Your task to perform on an android device: Is it going to rain today? Image 0: 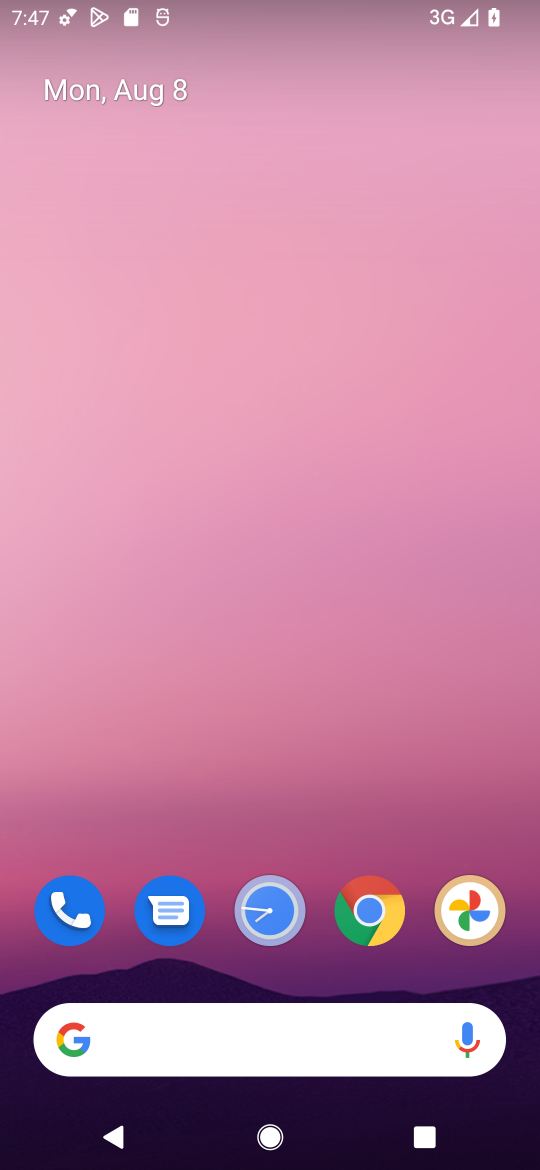
Step 0: click (278, 1041)
Your task to perform on an android device: Is it going to rain today? Image 1: 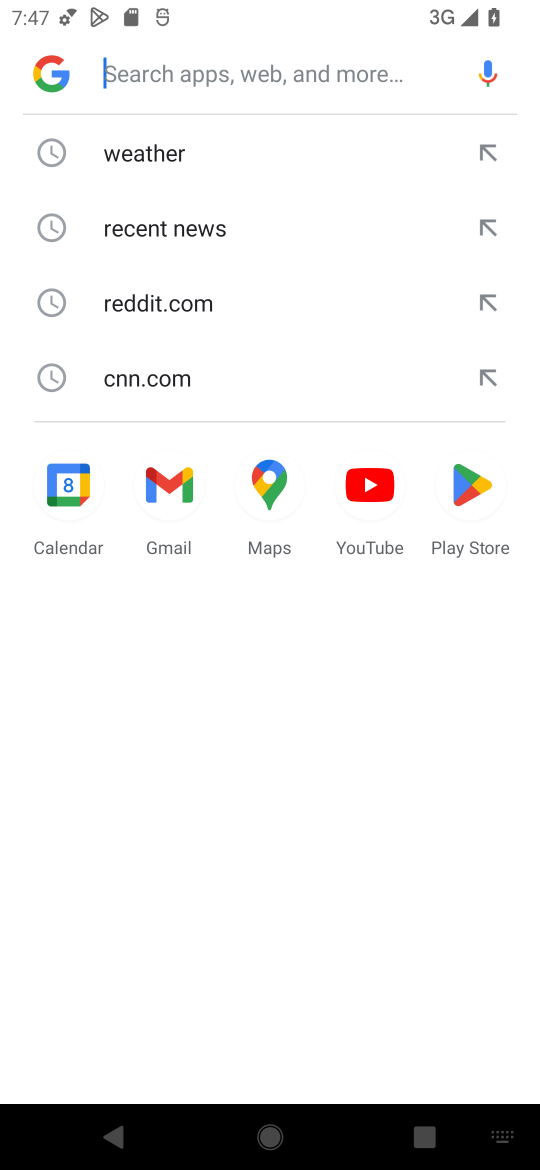
Step 1: type "is it going to rain today"
Your task to perform on an android device: Is it going to rain today? Image 2: 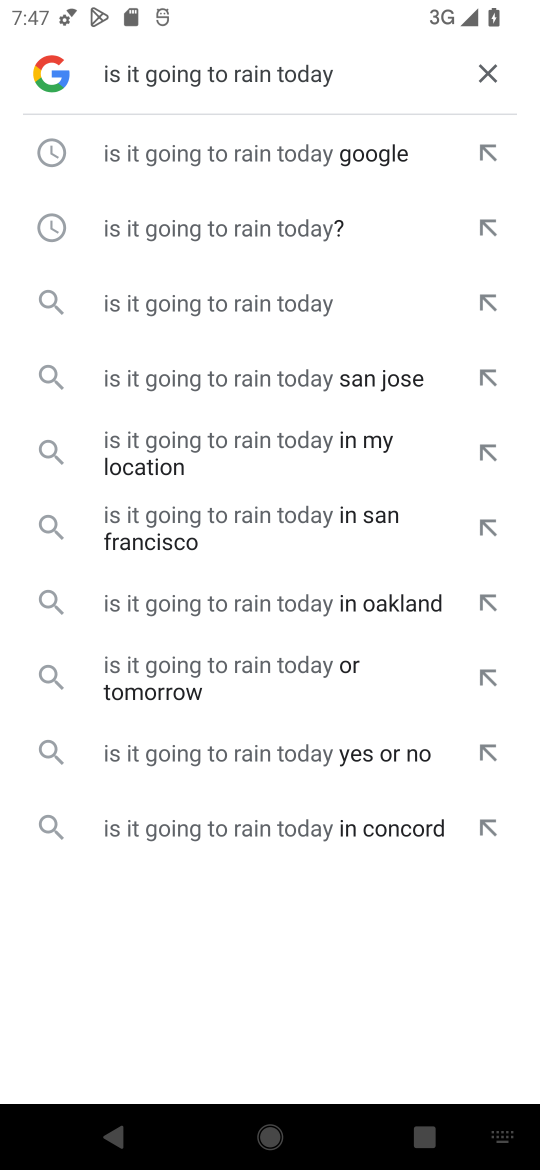
Step 2: click (278, 218)
Your task to perform on an android device: Is it going to rain today? Image 3: 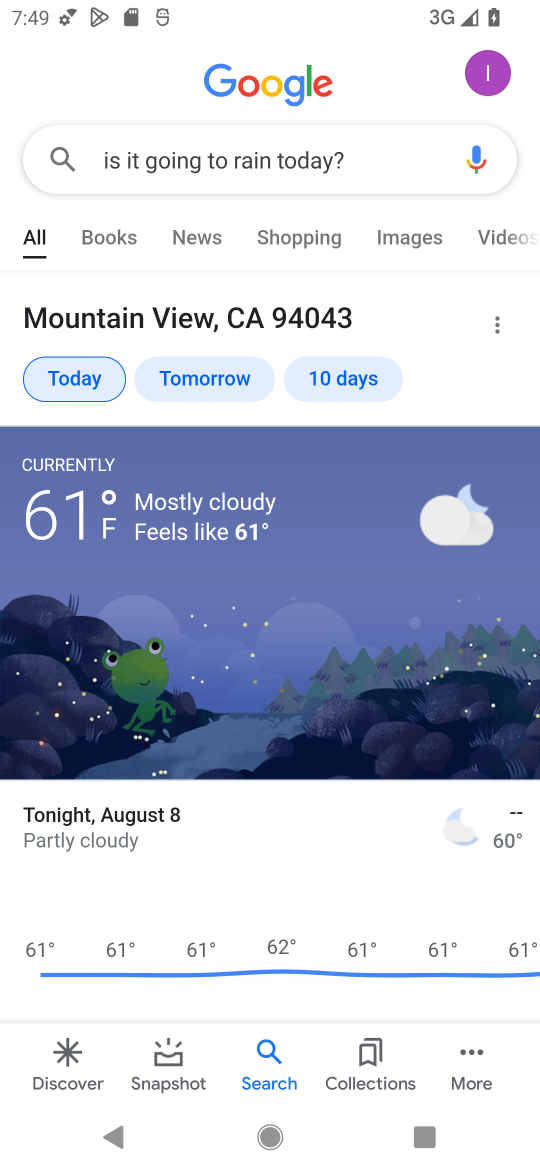
Step 3: task complete